Your task to perform on an android device: turn on notifications settings in the gmail app Image 0: 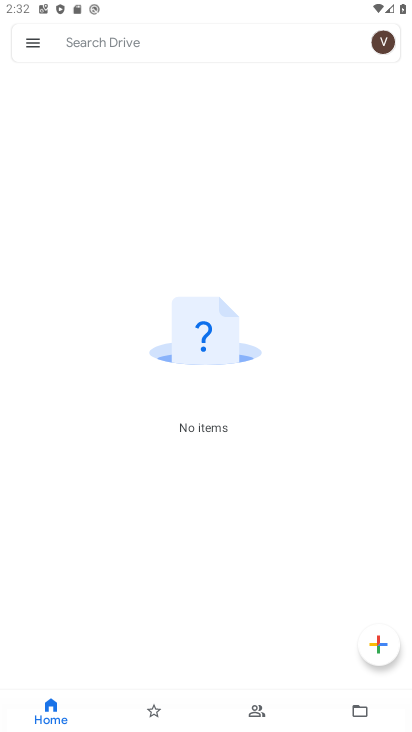
Step 0: press home button
Your task to perform on an android device: turn on notifications settings in the gmail app Image 1: 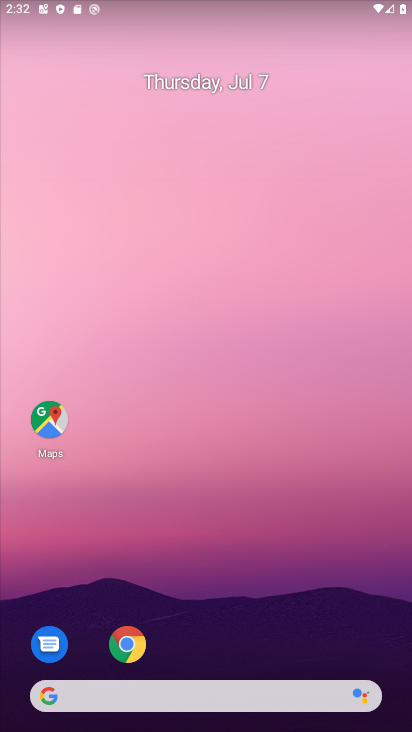
Step 1: drag from (247, 643) to (237, 109)
Your task to perform on an android device: turn on notifications settings in the gmail app Image 2: 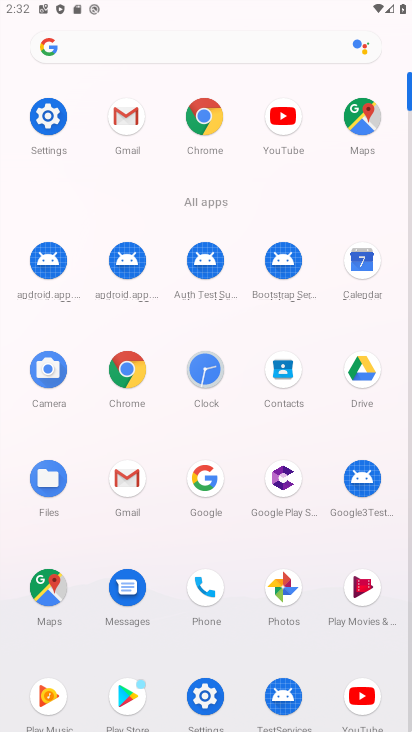
Step 2: click (126, 113)
Your task to perform on an android device: turn on notifications settings in the gmail app Image 3: 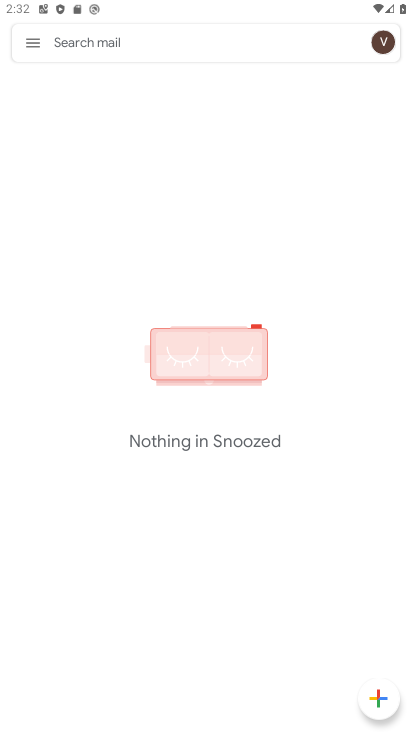
Step 3: click (30, 38)
Your task to perform on an android device: turn on notifications settings in the gmail app Image 4: 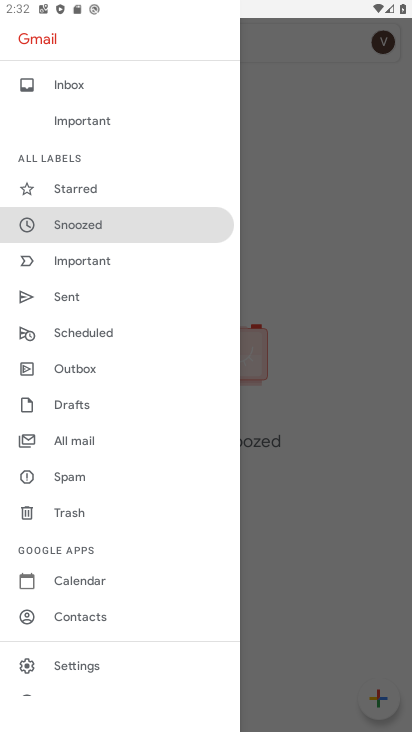
Step 4: click (82, 664)
Your task to perform on an android device: turn on notifications settings in the gmail app Image 5: 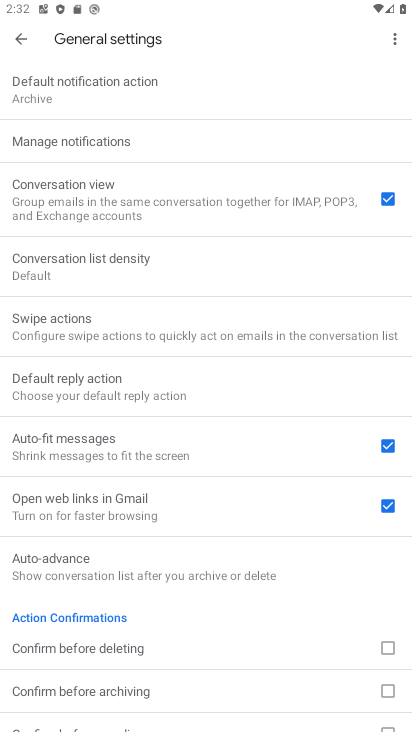
Step 5: click (69, 142)
Your task to perform on an android device: turn on notifications settings in the gmail app Image 6: 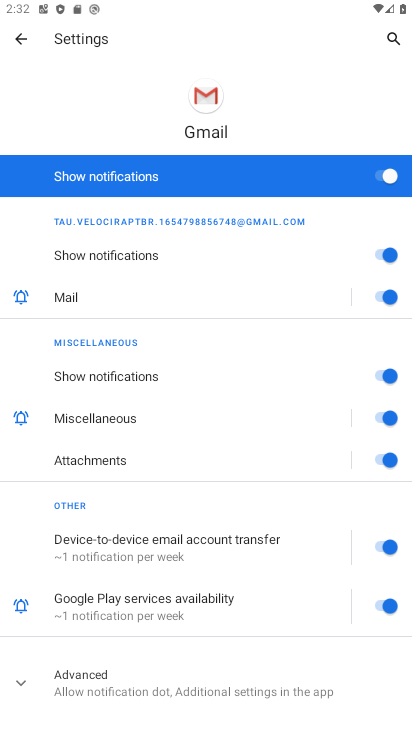
Step 6: task complete